Your task to perform on an android device: set the stopwatch Image 0: 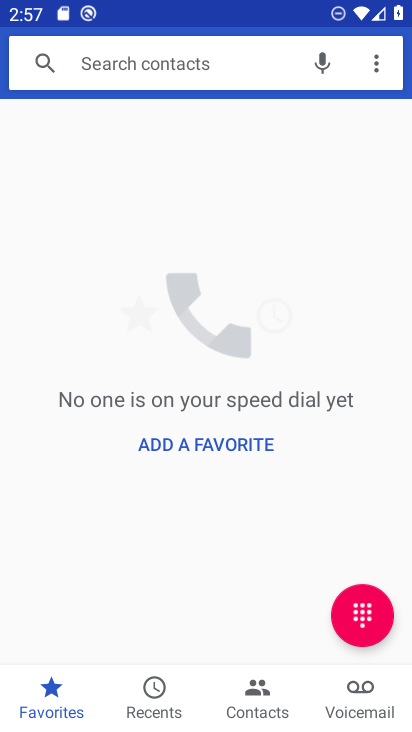
Step 0: press home button
Your task to perform on an android device: set the stopwatch Image 1: 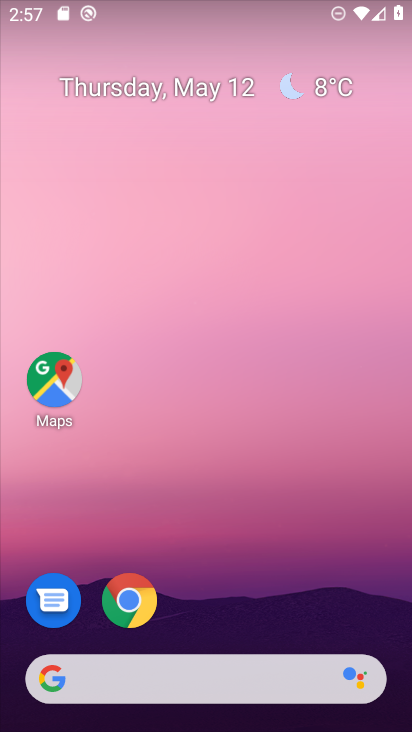
Step 1: drag from (216, 698) to (215, 142)
Your task to perform on an android device: set the stopwatch Image 2: 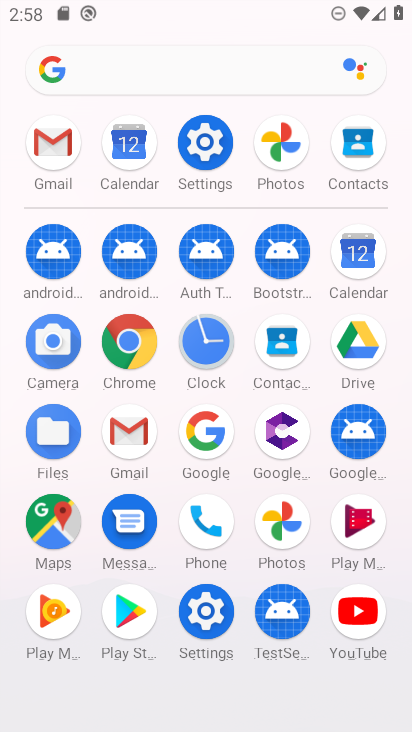
Step 2: click (208, 335)
Your task to perform on an android device: set the stopwatch Image 3: 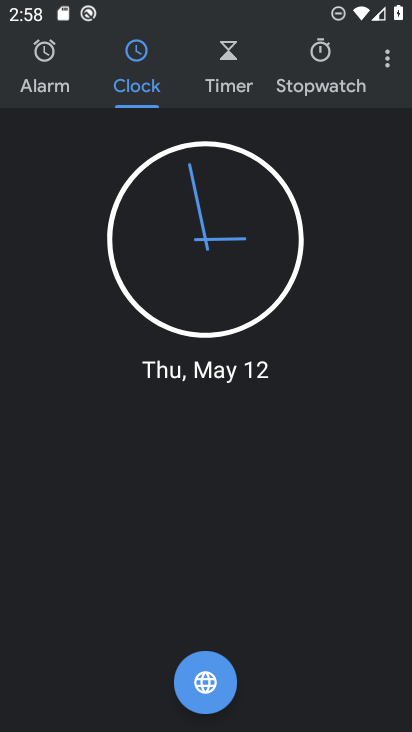
Step 3: click (315, 69)
Your task to perform on an android device: set the stopwatch Image 4: 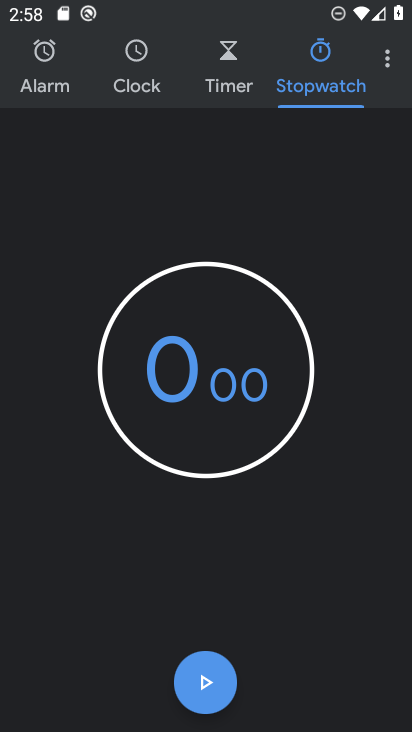
Step 4: click (197, 362)
Your task to perform on an android device: set the stopwatch Image 5: 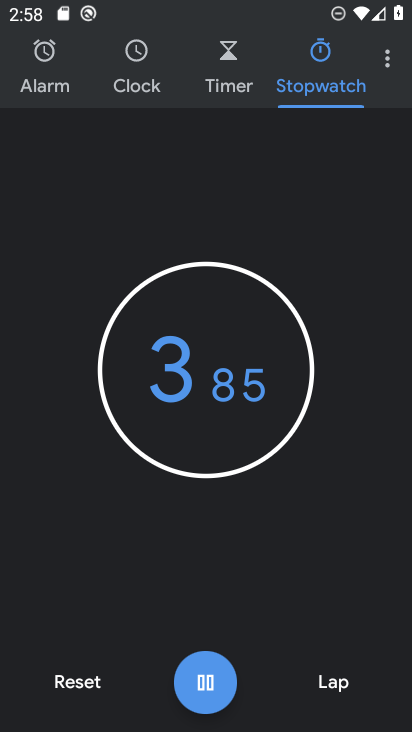
Step 5: type "78"
Your task to perform on an android device: set the stopwatch Image 6: 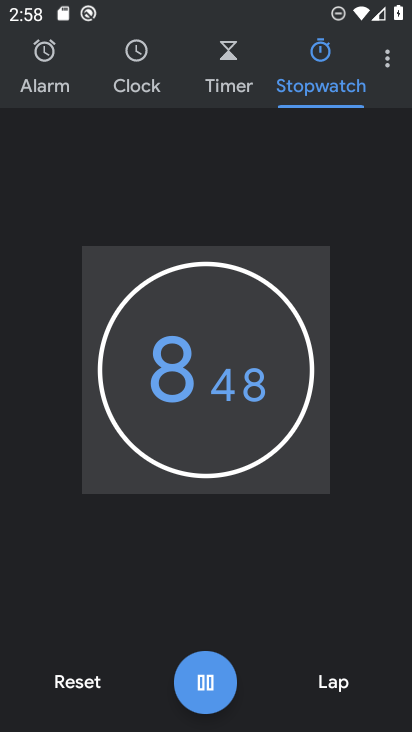
Step 6: task complete